Your task to perform on an android device: turn on wifi Image 0: 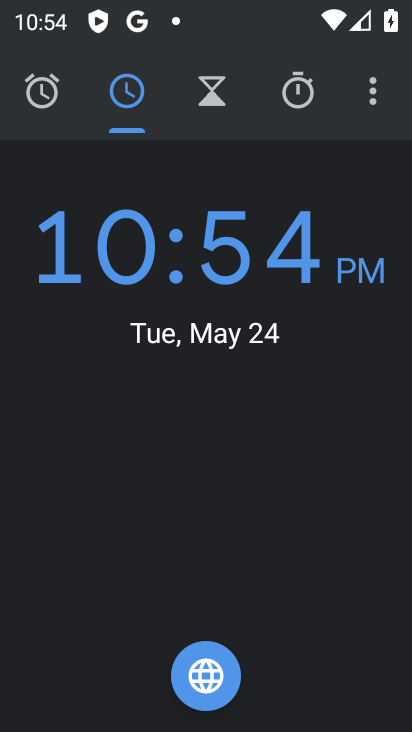
Step 0: press home button
Your task to perform on an android device: turn on wifi Image 1: 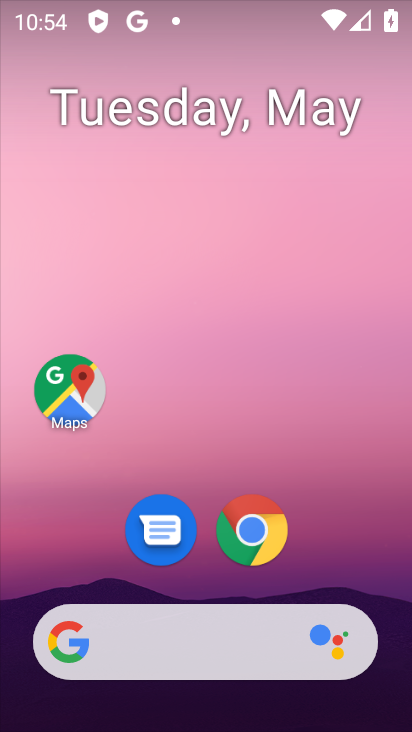
Step 1: drag from (309, 523) to (330, 213)
Your task to perform on an android device: turn on wifi Image 2: 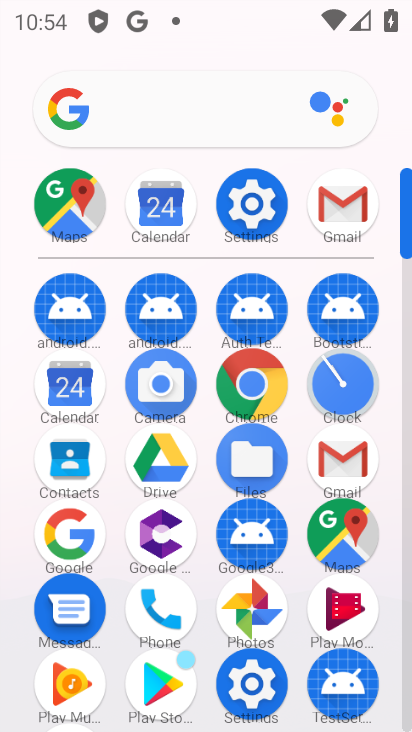
Step 2: click (261, 677)
Your task to perform on an android device: turn on wifi Image 3: 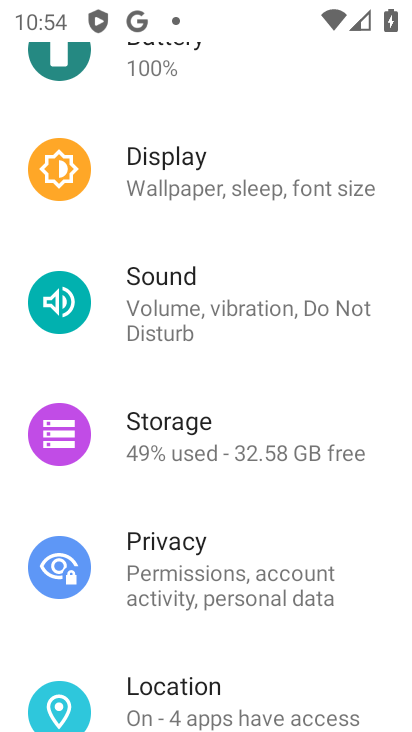
Step 3: drag from (250, 160) to (257, 598)
Your task to perform on an android device: turn on wifi Image 4: 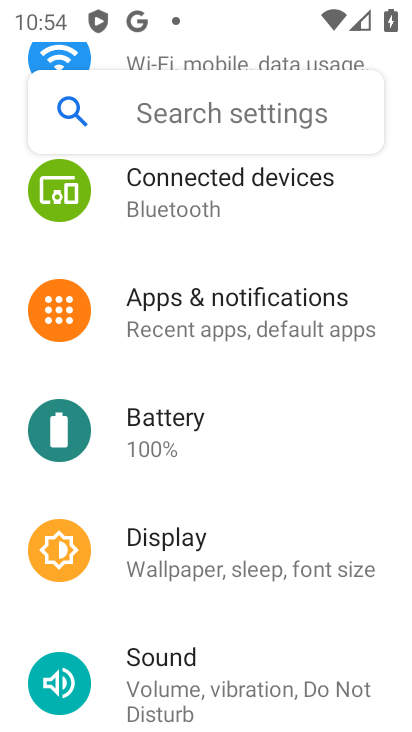
Step 4: drag from (355, 275) to (332, 665)
Your task to perform on an android device: turn on wifi Image 5: 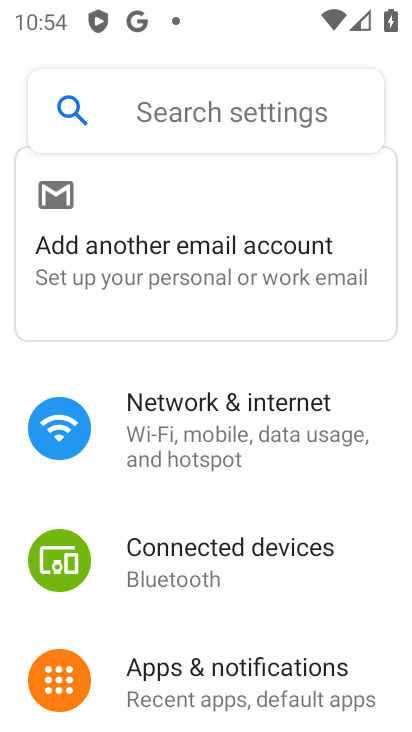
Step 5: click (274, 414)
Your task to perform on an android device: turn on wifi Image 6: 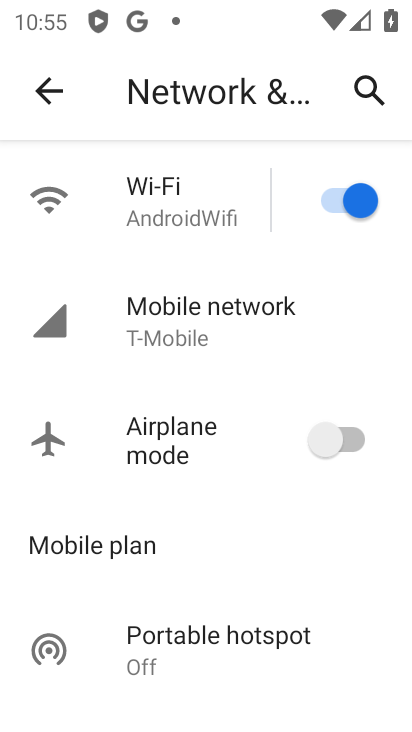
Step 6: task complete